Your task to perform on an android device: change notification settings in the gmail app Image 0: 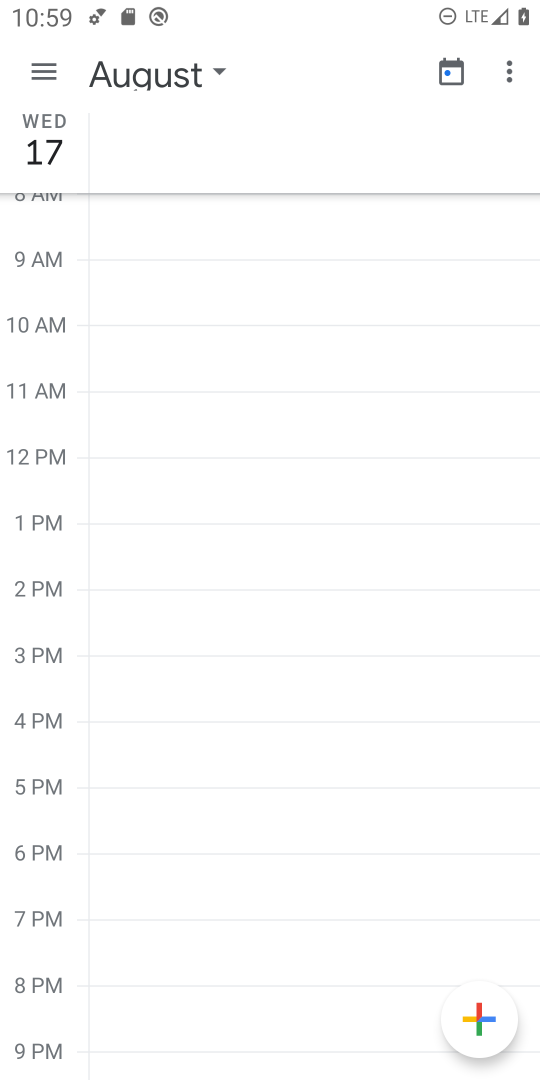
Step 0: press home button
Your task to perform on an android device: change notification settings in the gmail app Image 1: 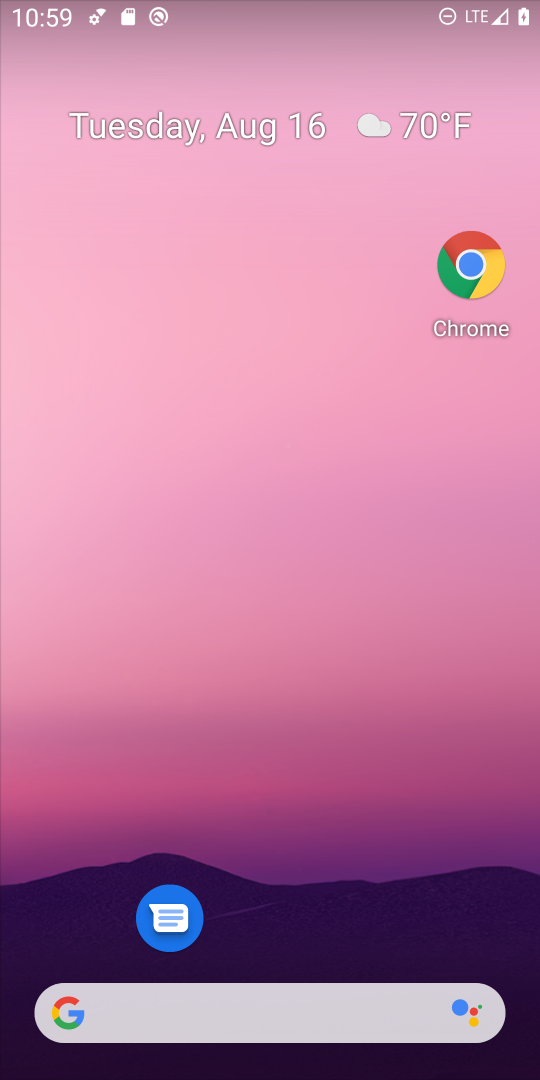
Step 1: drag from (331, 767) to (340, 356)
Your task to perform on an android device: change notification settings in the gmail app Image 2: 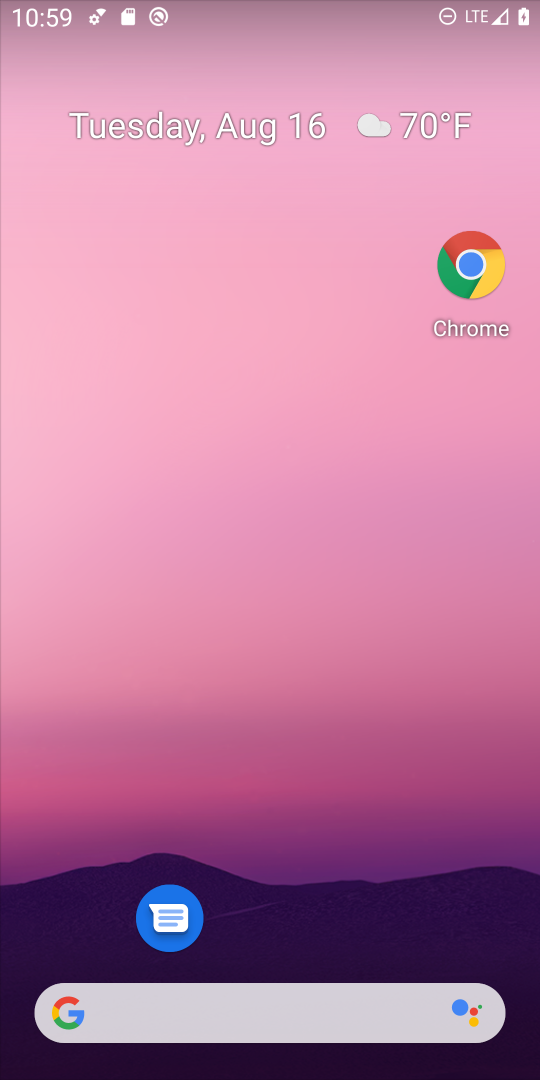
Step 2: drag from (352, 927) to (444, 177)
Your task to perform on an android device: change notification settings in the gmail app Image 3: 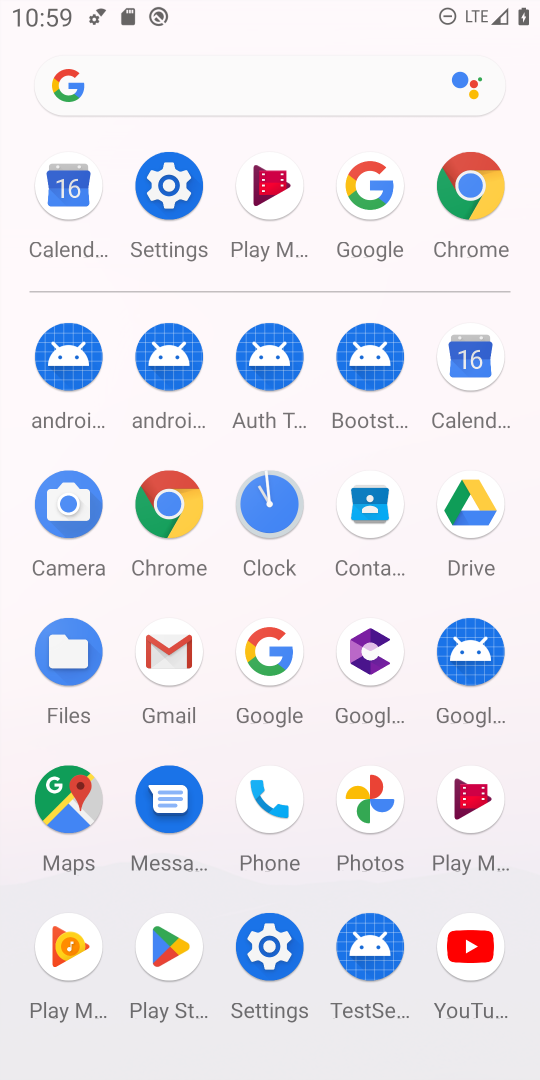
Step 3: click (173, 675)
Your task to perform on an android device: change notification settings in the gmail app Image 4: 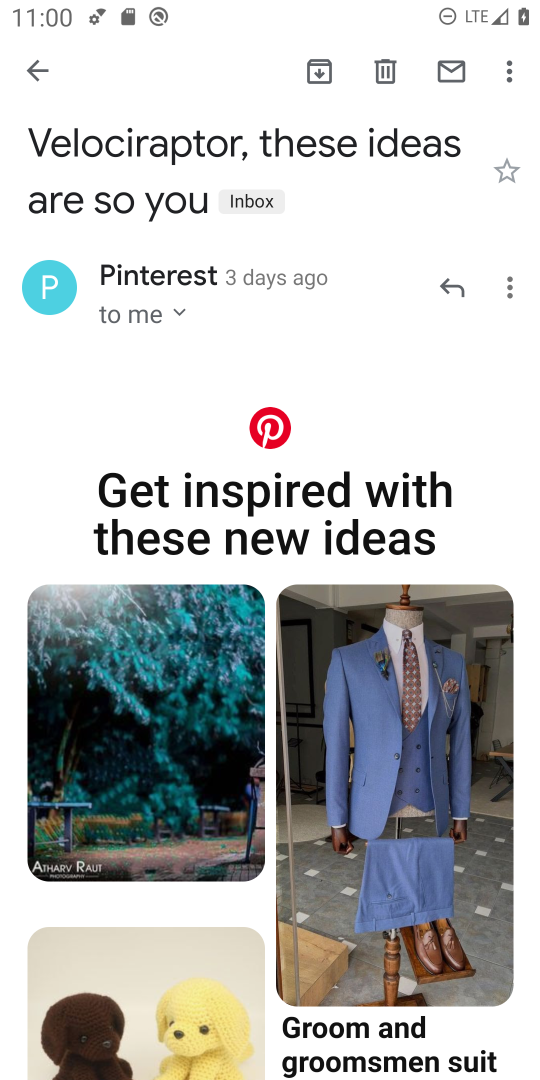
Step 4: click (54, 66)
Your task to perform on an android device: change notification settings in the gmail app Image 5: 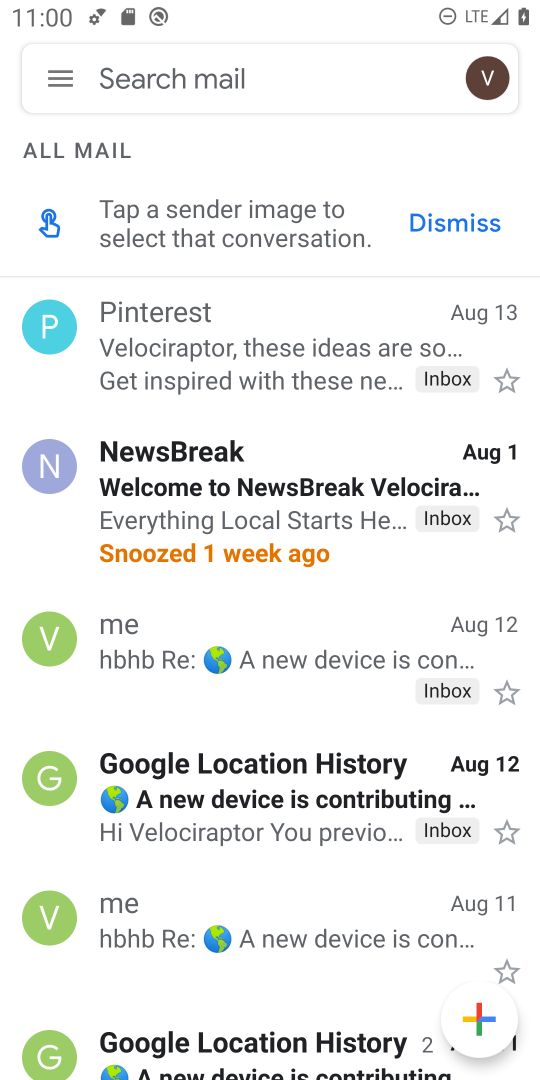
Step 5: click (77, 75)
Your task to perform on an android device: change notification settings in the gmail app Image 6: 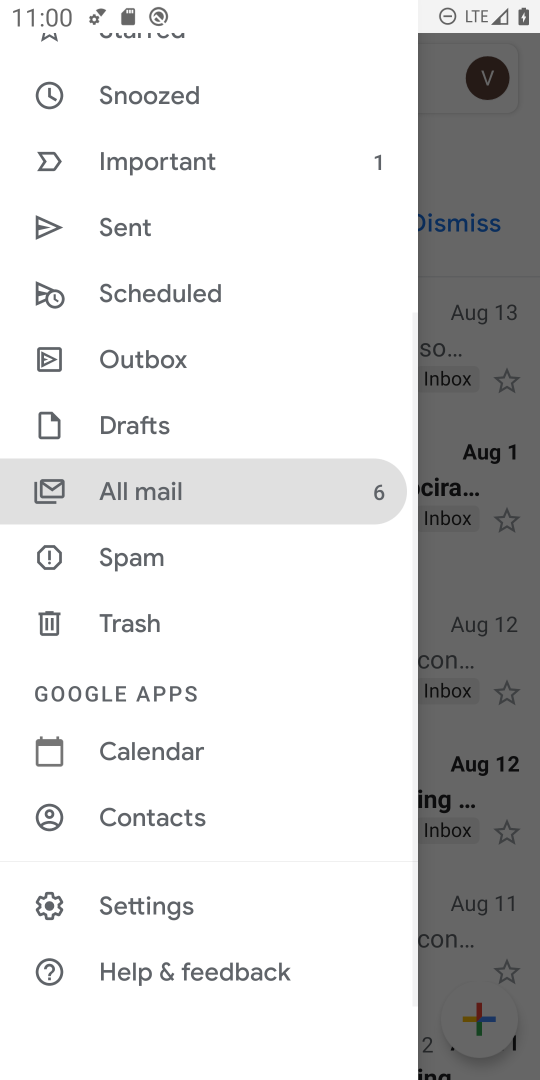
Step 6: click (149, 889)
Your task to perform on an android device: change notification settings in the gmail app Image 7: 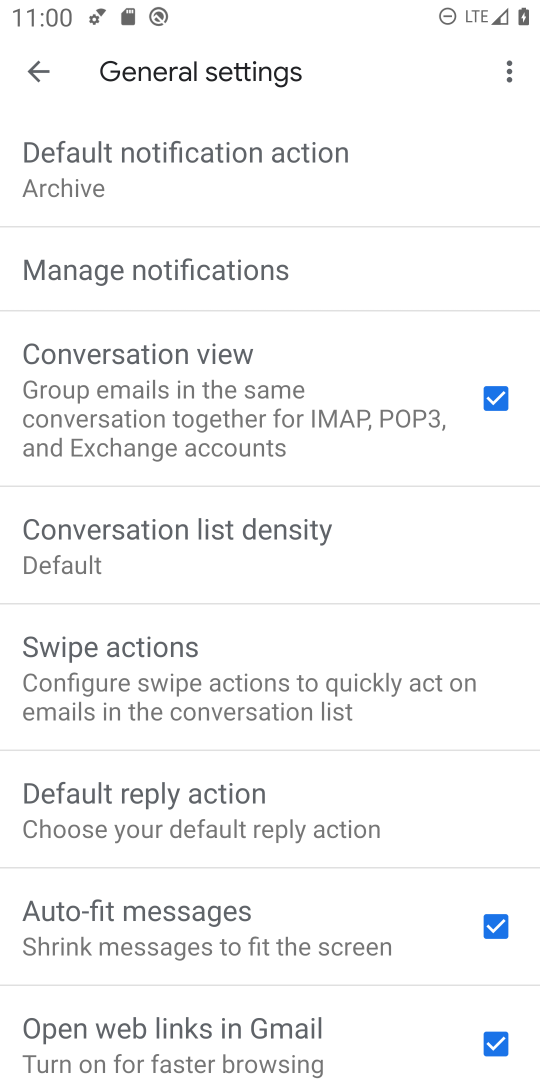
Step 7: click (275, 277)
Your task to perform on an android device: change notification settings in the gmail app Image 8: 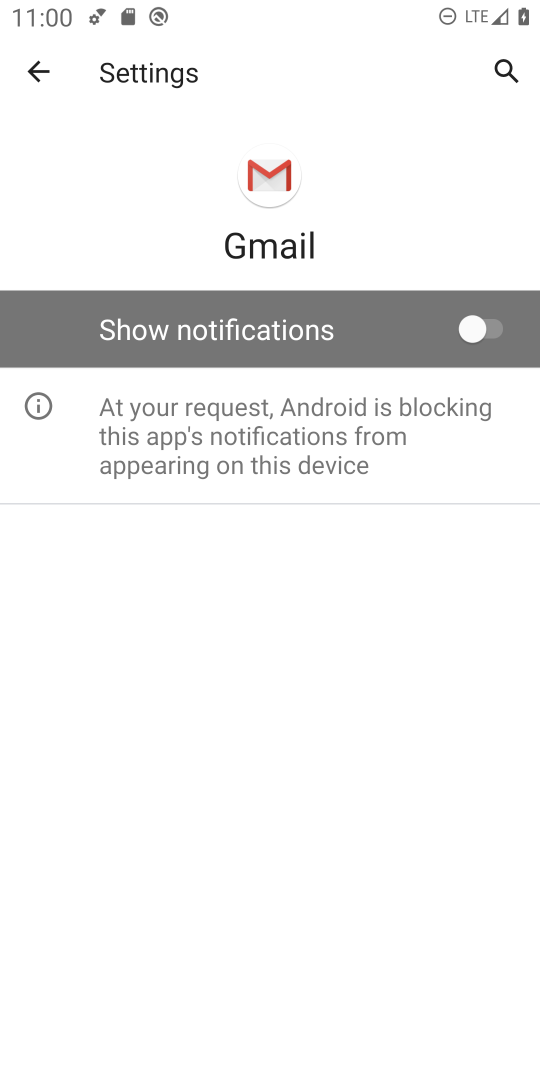
Step 8: click (382, 339)
Your task to perform on an android device: change notification settings in the gmail app Image 9: 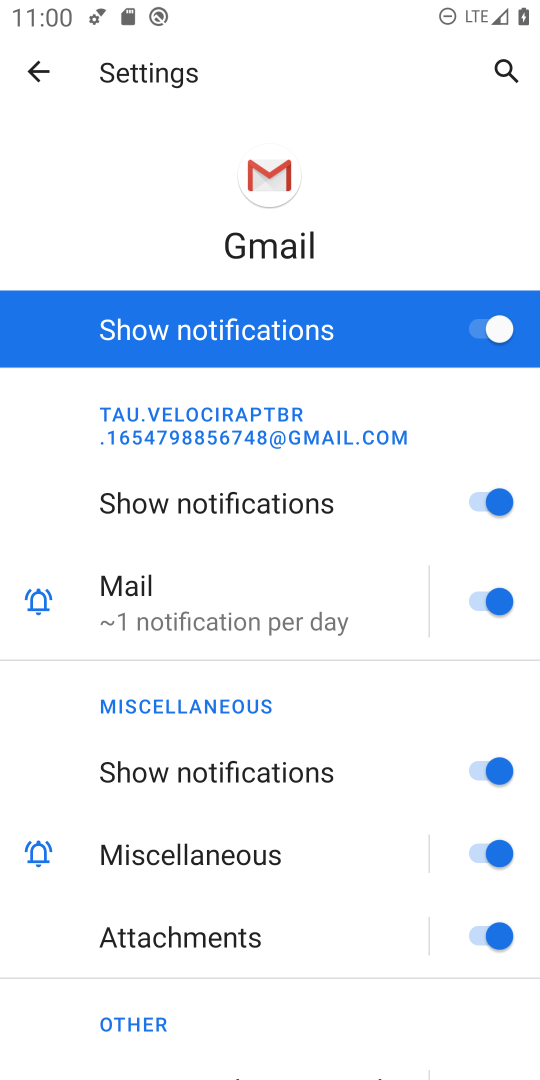
Step 9: task complete